Your task to perform on an android device: Open internet settings Image 0: 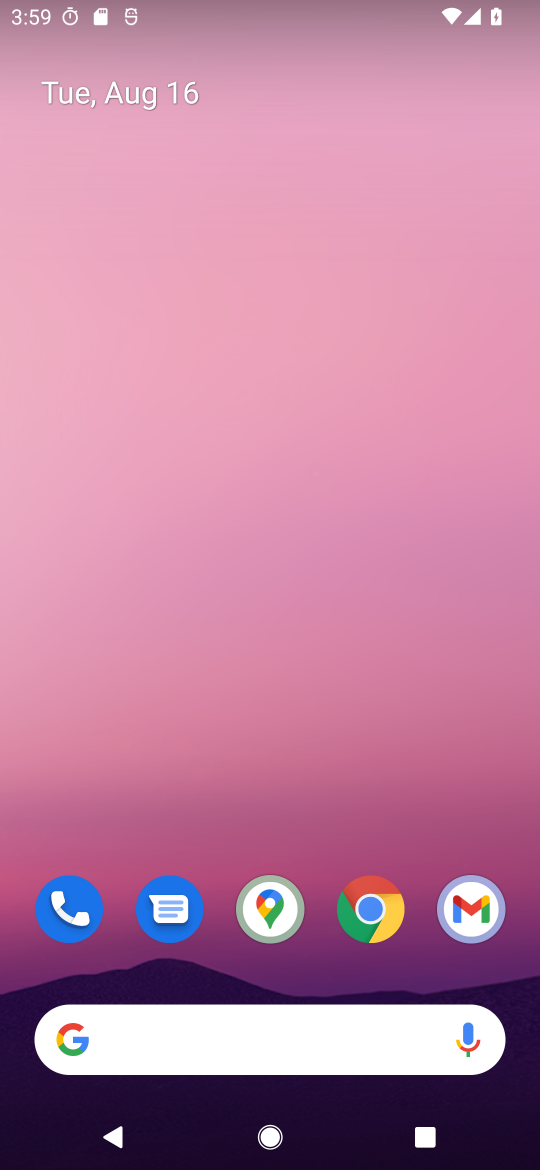
Step 0: drag from (287, 946) to (282, 224)
Your task to perform on an android device: Open internet settings Image 1: 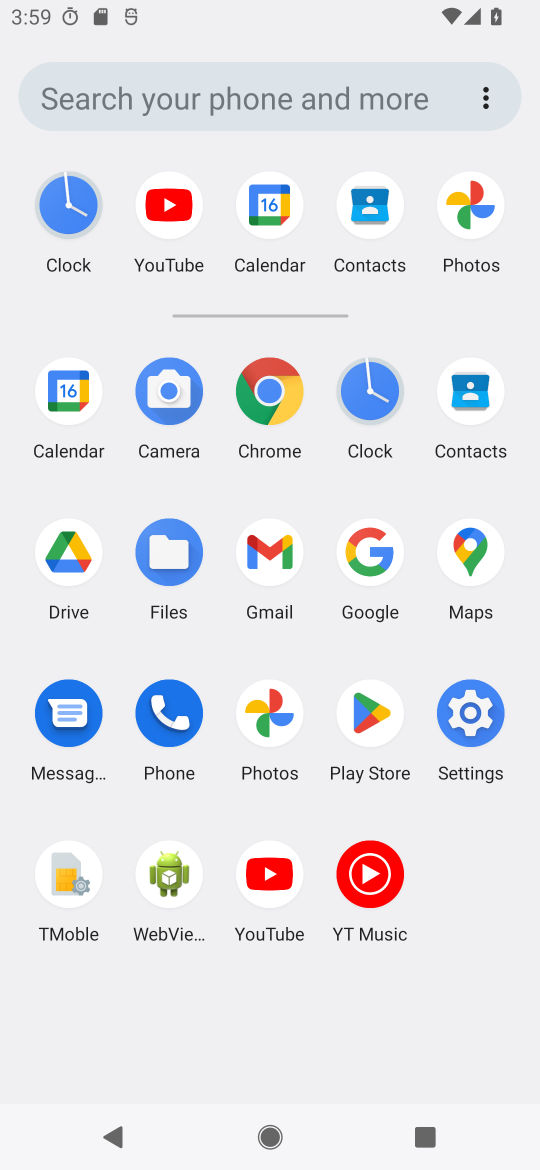
Step 1: click (467, 709)
Your task to perform on an android device: Open internet settings Image 2: 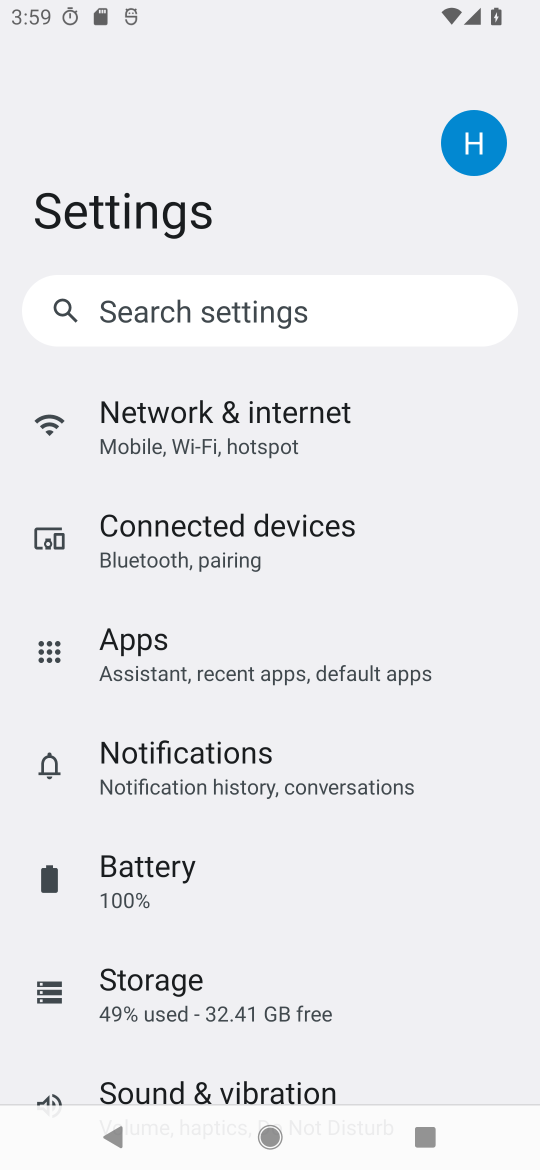
Step 2: click (212, 445)
Your task to perform on an android device: Open internet settings Image 3: 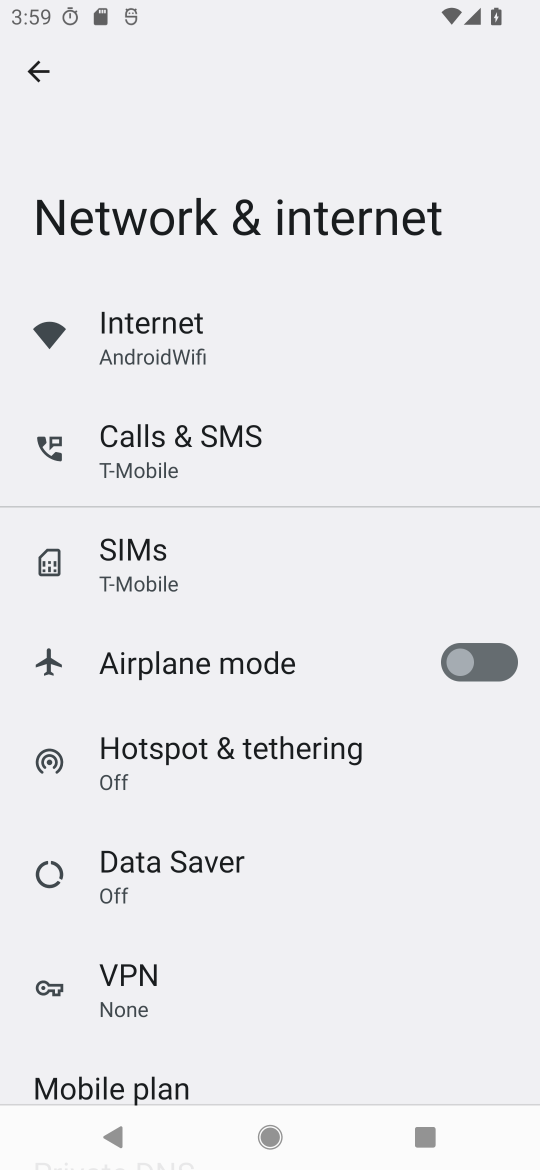
Step 3: task complete